Your task to perform on an android device: Go to notification settings Image 0: 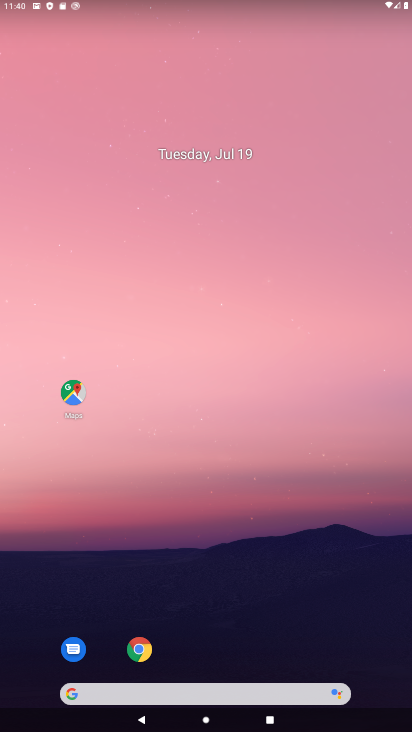
Step 0: drag from (222, 680) to (161, 188)
Your task to perform on an android device: Go to notification settings Image 1: 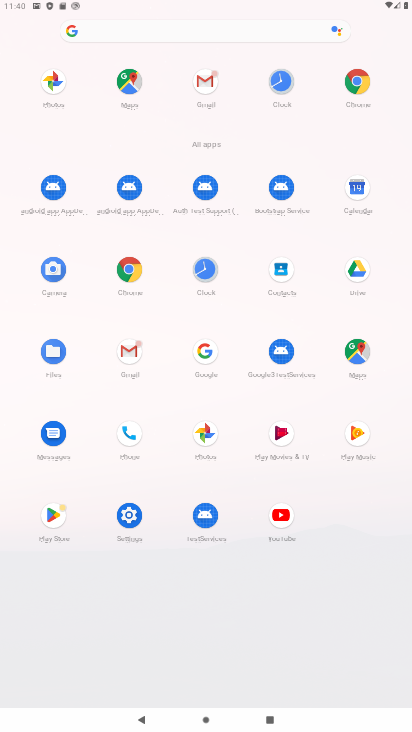
Step 1: click (125, 520)
Your task to perform on an android device: Go to notification settings Image 2: 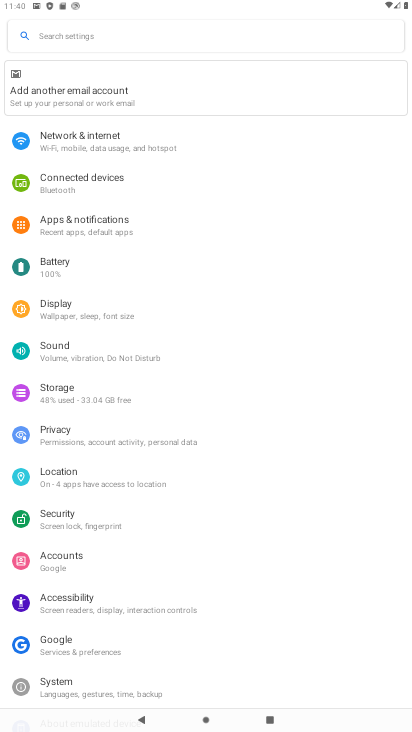
Step 2: click (61, 234)
Your task to perform on an android device: Go to notification settings Image 3: 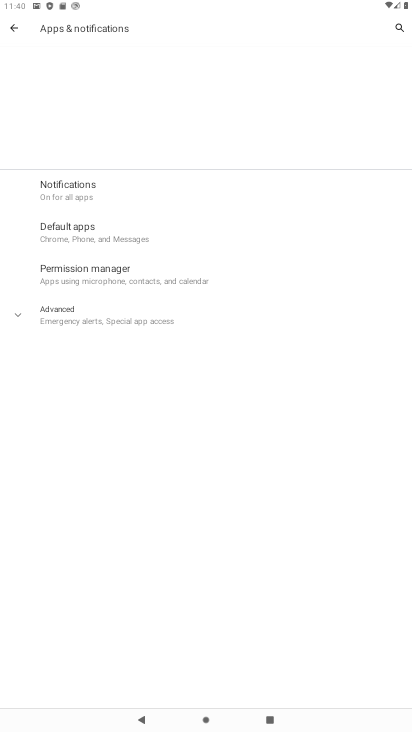
Step 3: click (54, 183)
Your task to perform on an android device: Go to notification settings Image 4: 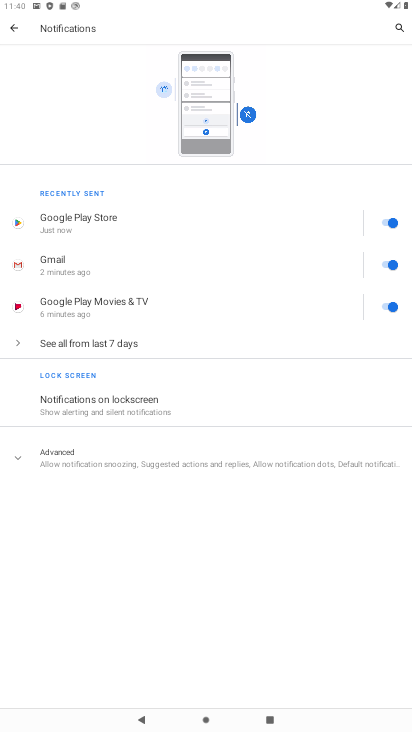
Step 4: task complete